Your task to perform on an android device: turn off wifi Image 0: 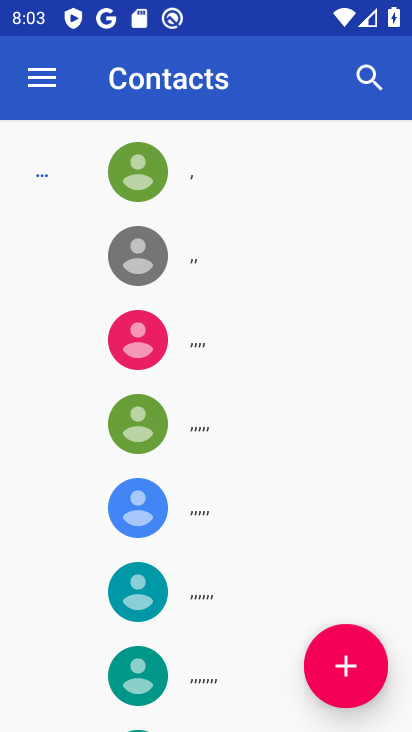
Step 0: press back button
Your task to perform on an android device: turn off wifi Image 1: 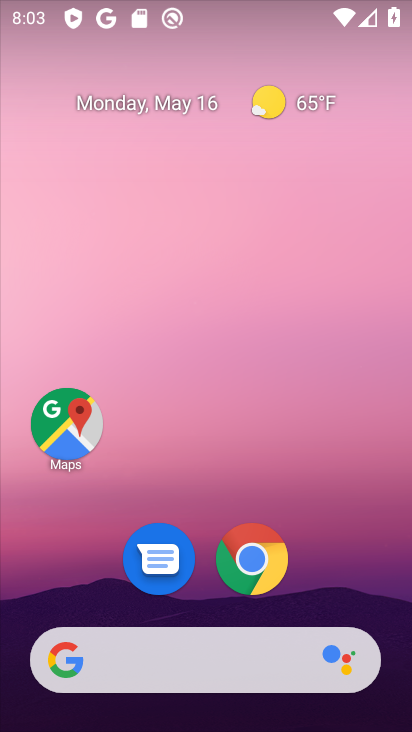
Step 1: drag from (78, 6) to (126, 512)
Your task to perform on an android device: turn off wifi Image 2: 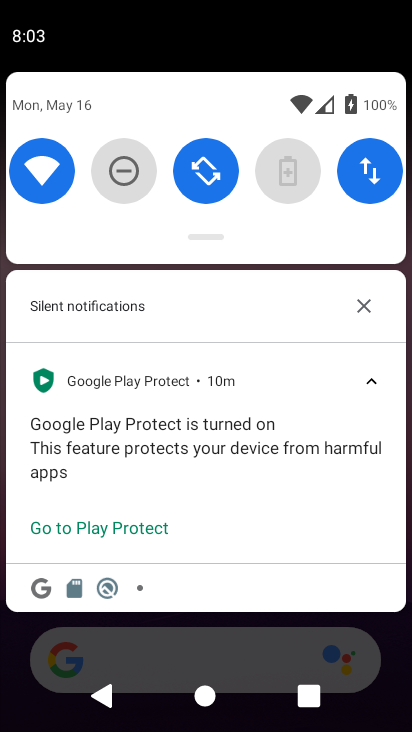
Step 2: click (37, 176)
Your task to perform on an android device: turn off wifi Image 3: 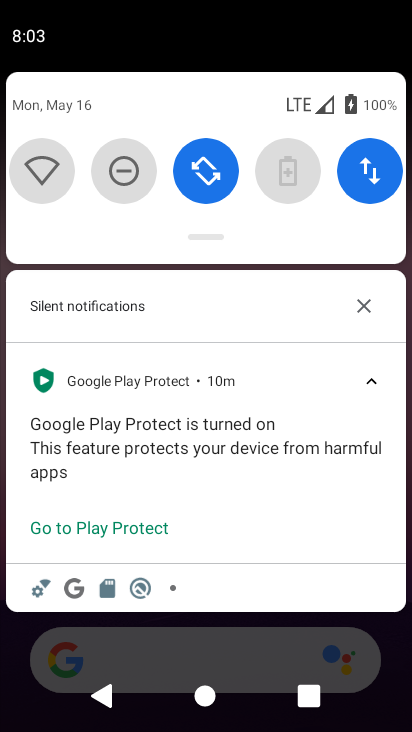
Step 3: task complete